Your task to perform on an android device: toggle priority inbox in the gmail app Image 0: 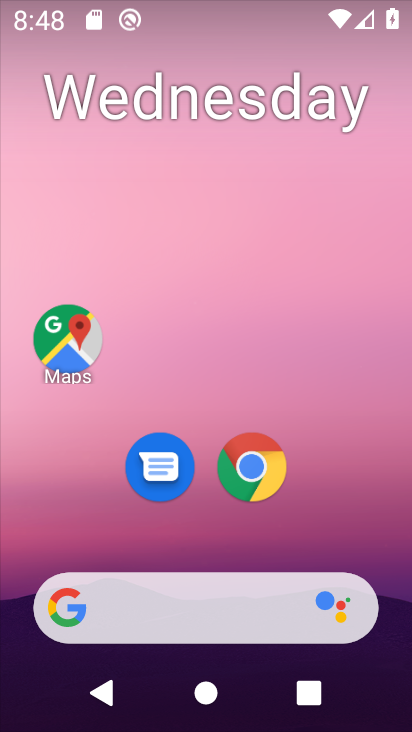
Step 0: drag from (372, 381) to (389, 0)
Your task to perform on an android device: toggle priority inbox in the gmail app Image 1: 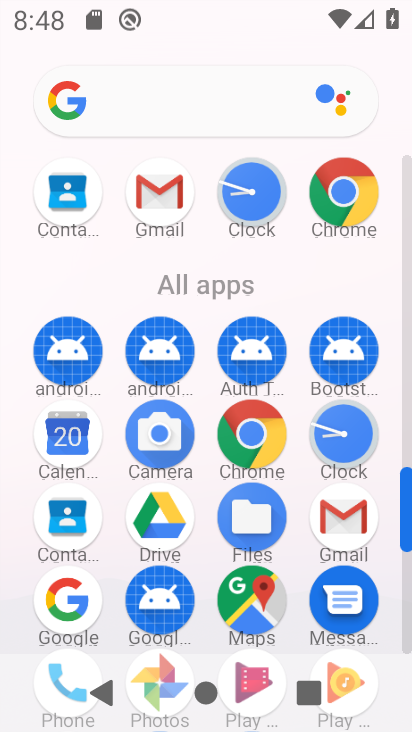
Step 1: click (160, 196)
Your task to perform on an android device: toggle priority inbox in the gmail app Image 2: 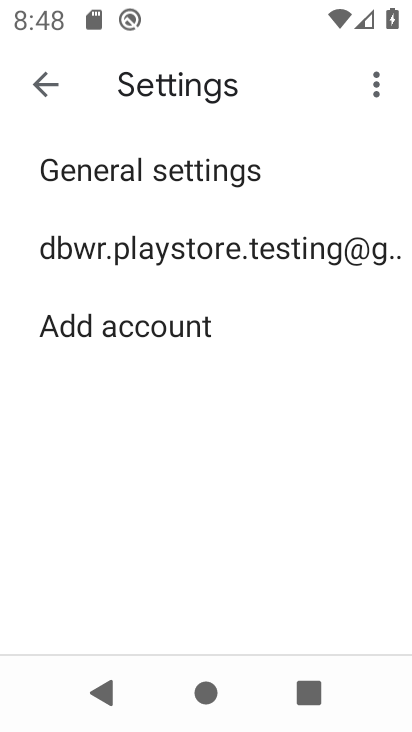
Step 2: click (189, 254)
Your task to perform on an android device: toggle priority inbox in the gmail app Image 3: 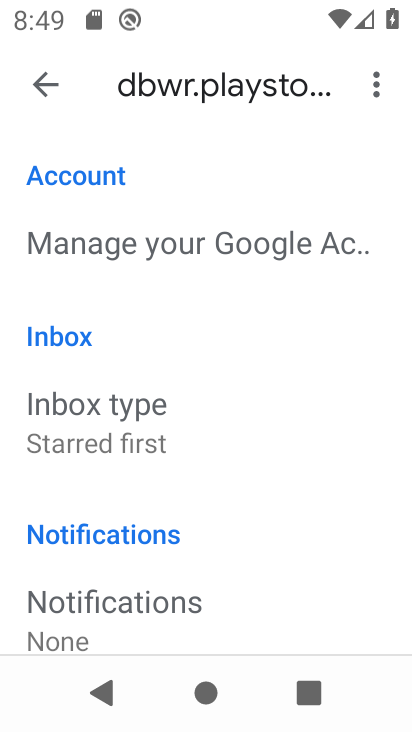
Step 3: click (131, 435)
Your task to perform on an android device: toggle priority inbox in the gmail app Image 4: 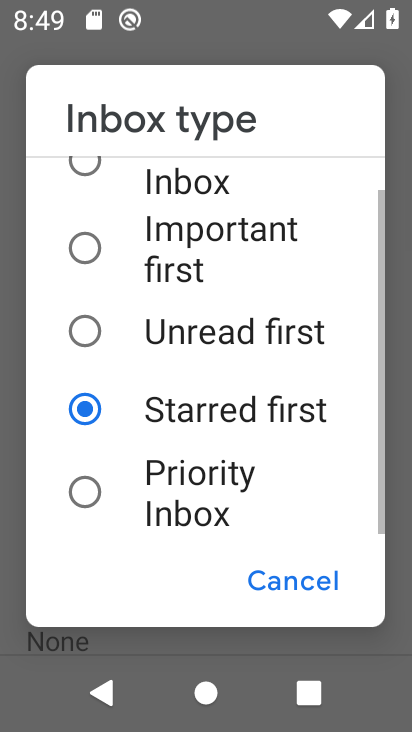
Step 4: click (80, 505)
Your task to perform on an android device: toggle priority inbox in the gmail app Image 5: 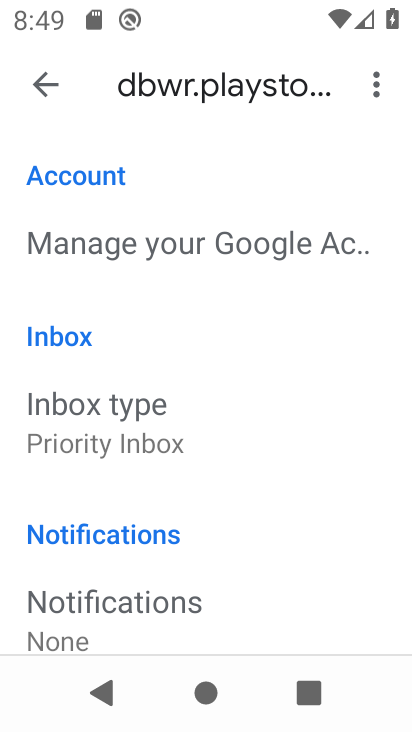
Step 5: task complete